Your task to perform on an android device: allow cookies in the chrome app Image 0: 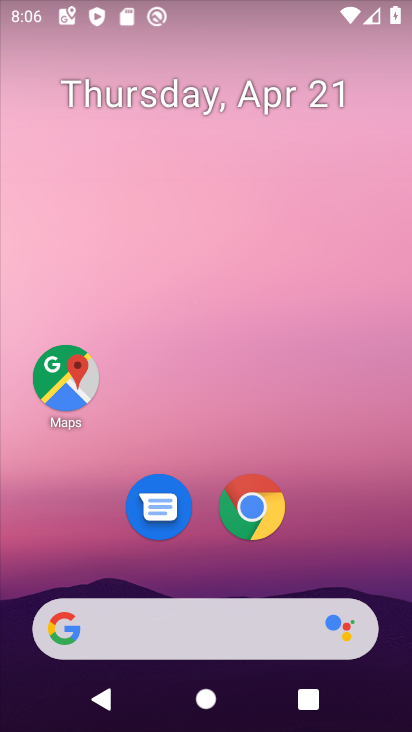
Step 0: drag from (334, 515) to (365, 133)
Your task to perform on an android device: allow cookies in the chrome app Image 1: 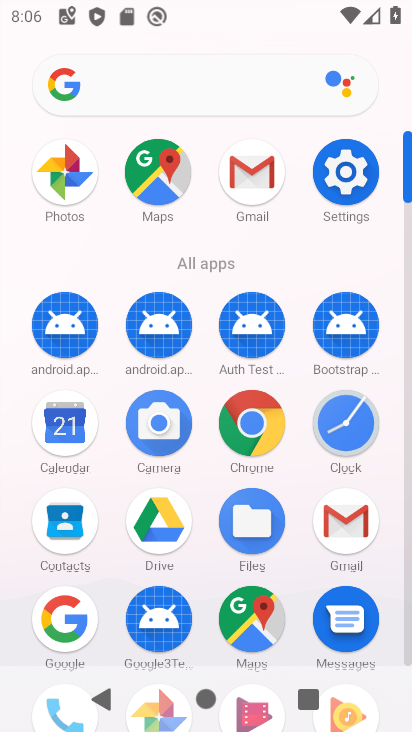
Step 1: click (259, 412)
Your task to perform on an android device: allow cookies in the chrome app Image 2: 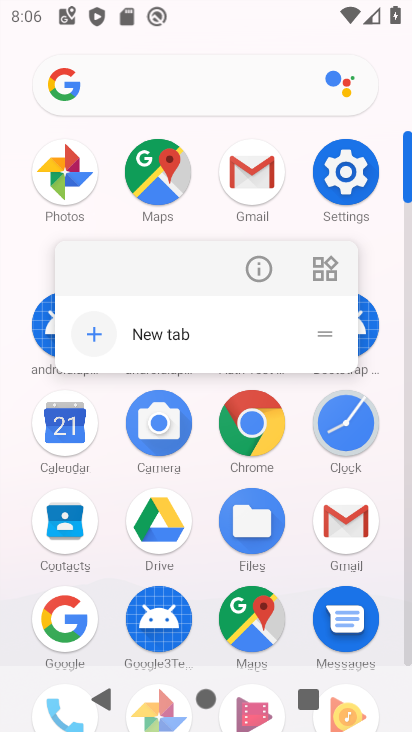
Step 2: click (265, 416)
Your task to perform on an android device: allow cookies in the chrome app Image 3: 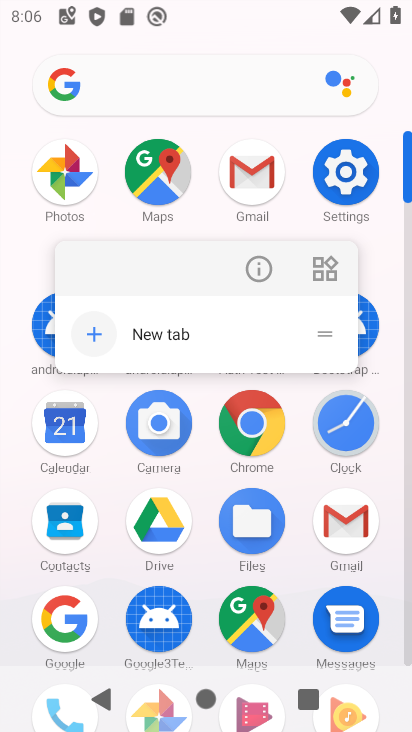
Step 3: click (266, 439)
Your task to perform on an android device: allow cookies in the chrome app Image 4: 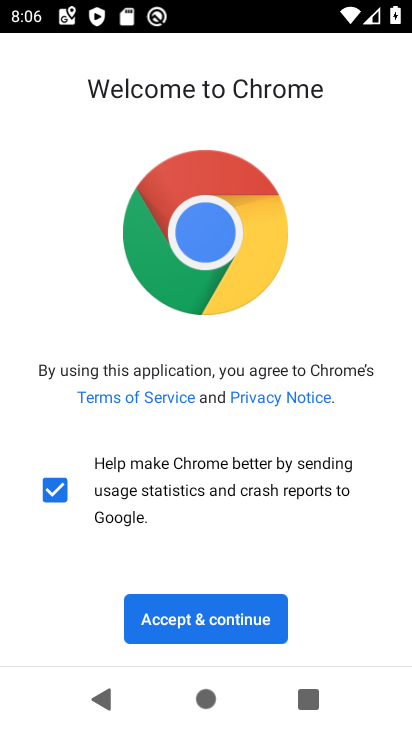
Step 4: click (242, 625)
Your task to perform on an android device: allow cookies in the chrome app Image 5: 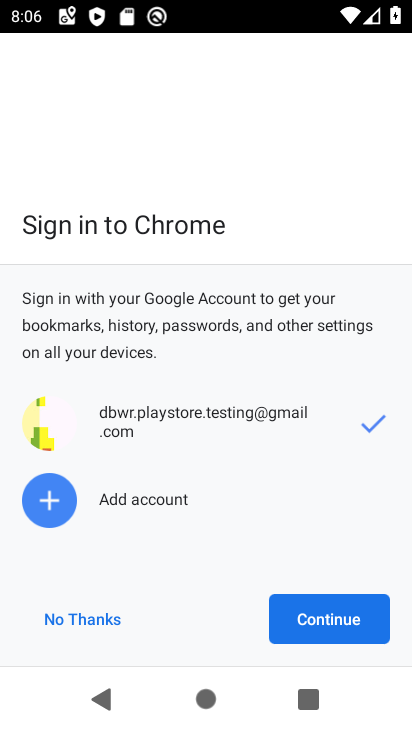
Step 5: click (333, 619)
Your task to perform on an android device: allow cookies in the chrome app Image 6: 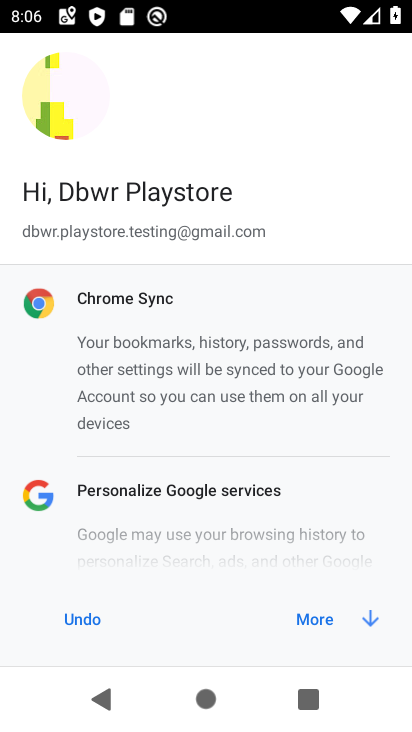
Step 6: click (328, 612)
Your task to perform on an android device: allow cookies in the chrome app Image 7: 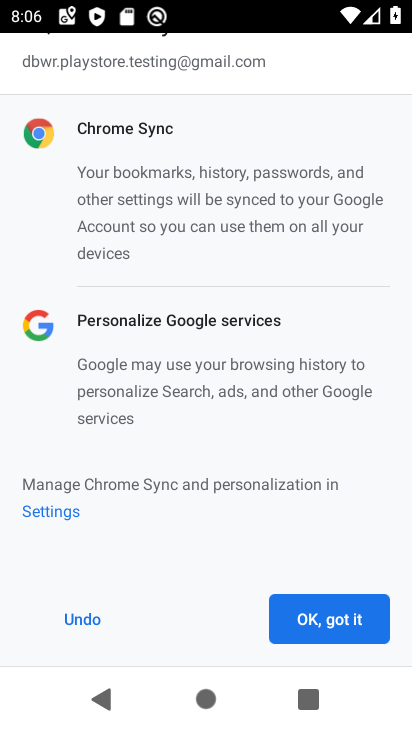
Step 7: click (337, 605)
Your task to perform on an android device: allow cookies in the chrome app Image 8: 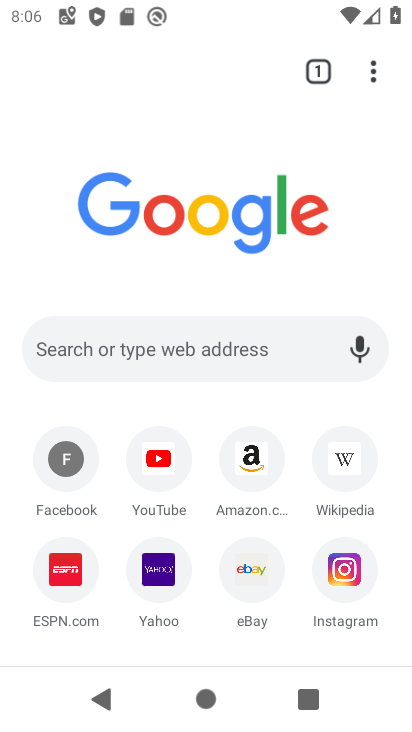
Step 8: drag from (375, 84) to (111, 495)
Your task to perform on an android device: allow cookies in the chrome app Image 9: 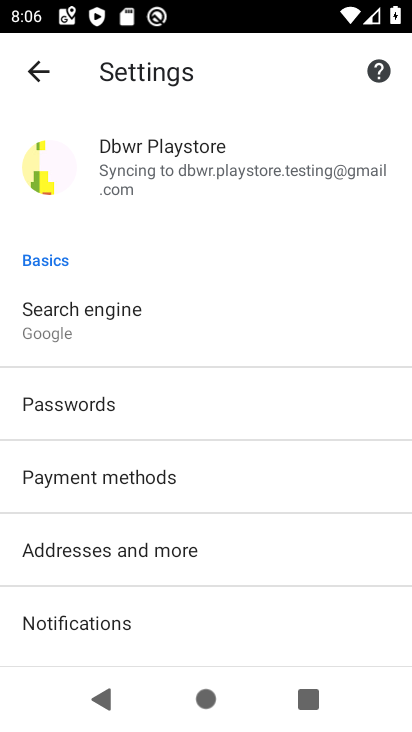
Step 9: drag from (245, 597) to (254, 315)
Your task to perform on an android device: allow cookies in the chrome app Image 10: 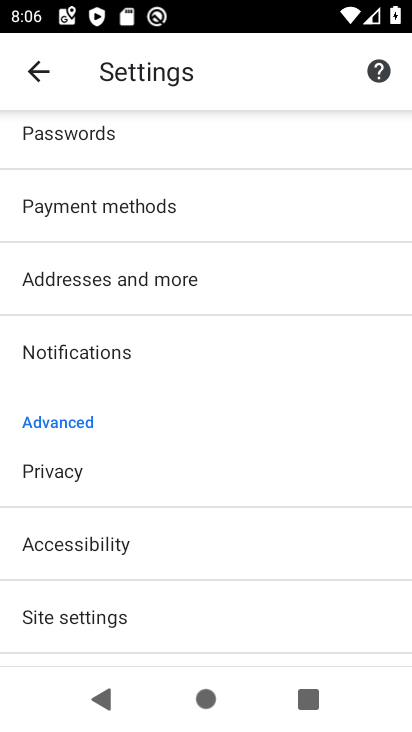
Step 10: click (105, 621)
Your task to perform on an android device: allow cookies in the chrome app Image 11: 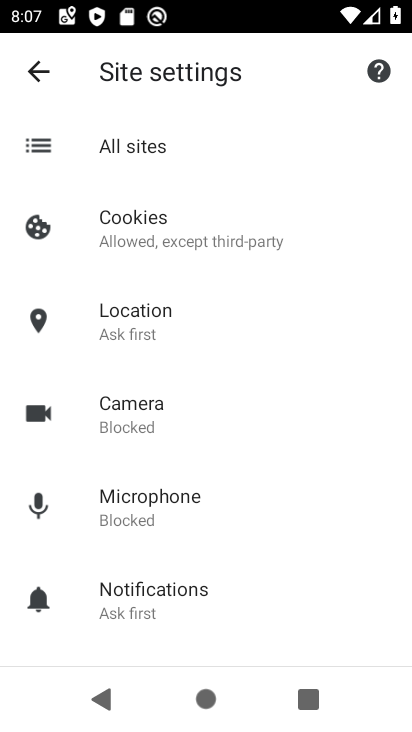
Step 11: click (190, 222)
Your task to perform on an android device: allow cookies in the chrome app Image 12: 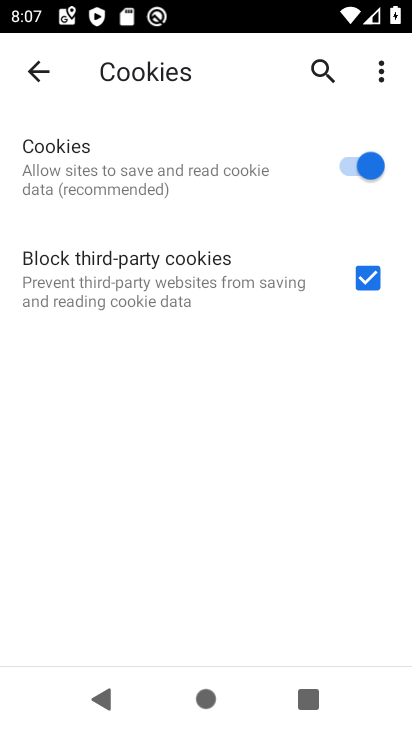
Step 12: task complete